Your task to perform on an android device: When is my next meeting? Image 0: 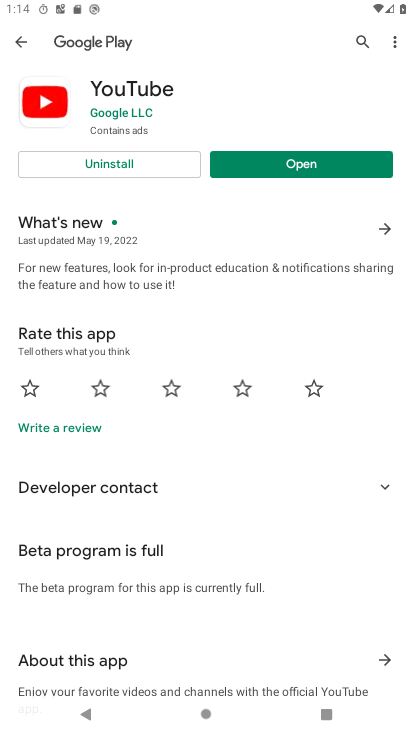
Step 0: press home button
Your task to perform on an android device: When is my next meeting? Image 1: 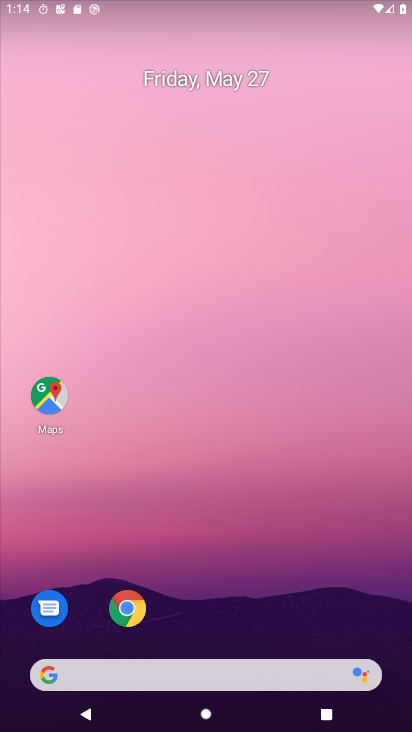
Step 1: drag from (389, 705) to (315, 114)
Your task to perform on an android device: When is my next meeting? Image 2: 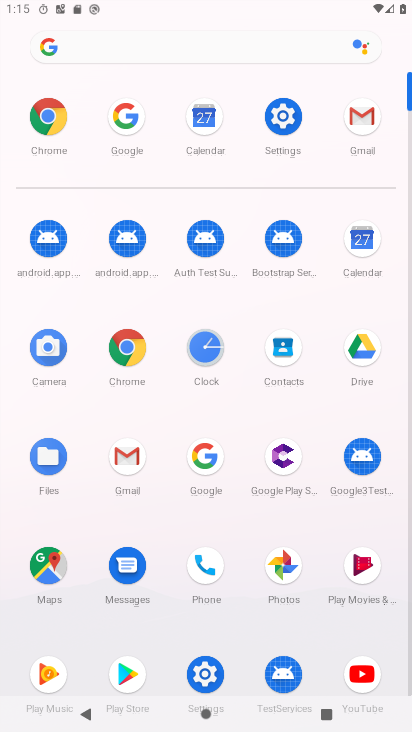
Step 2: click (368, 240)
Your task to perform on an android device: When is my next meeting? Image 3: 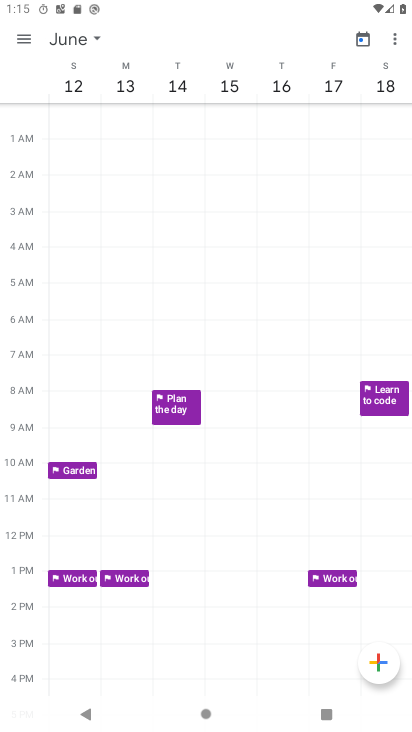
Step 3: click (25, 34)
Your task to perform on an android device: When is my next meeting? Image 4: 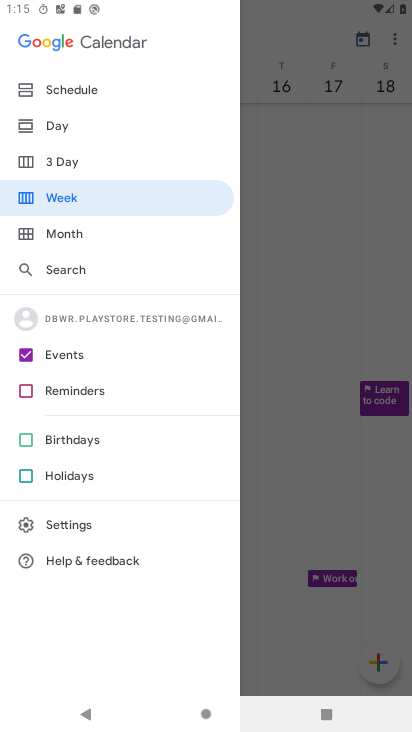
Step 4: click (46, 86)
Your task to perform on an android device: When is my next meeting? Image 5: 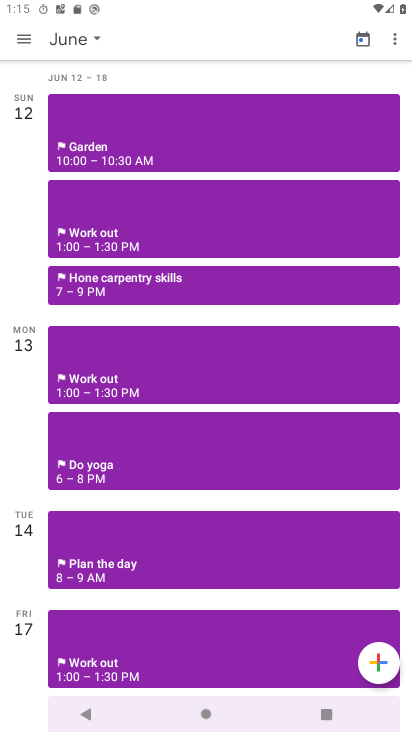
Step 5: click (97, 36)
Your task to perform on an android device: When is my next meeting? Image 6: 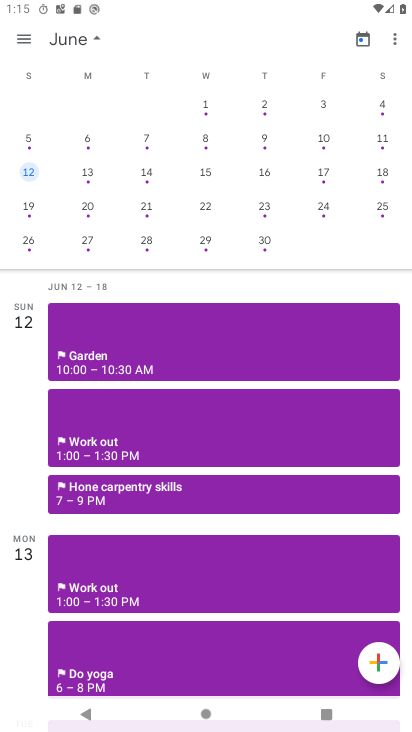
Step 6: drag from (10, 122) to (311, 115)
Your task to perform on an android device: When is my next meeting? Image 7: 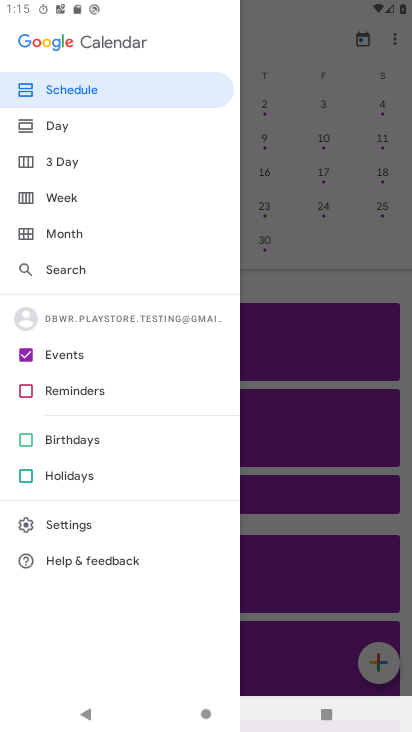
Step 7: click (299, 116)
Your task to perform on an android device: When is my next meeting? Image 8: 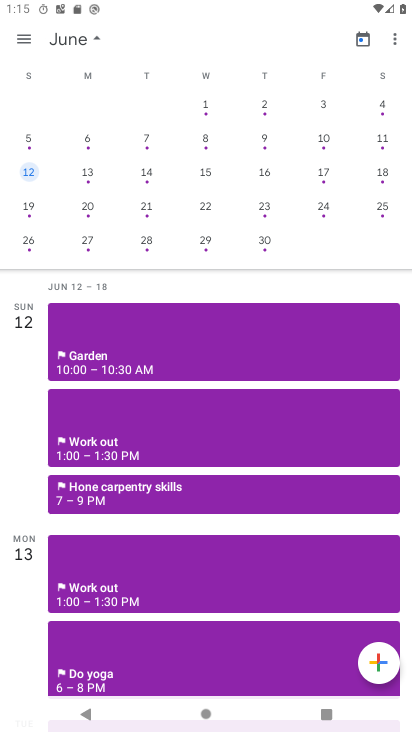
Step 8: click (359, 106)
Your task to perform on an android device: When is my next meeting? Image 9: 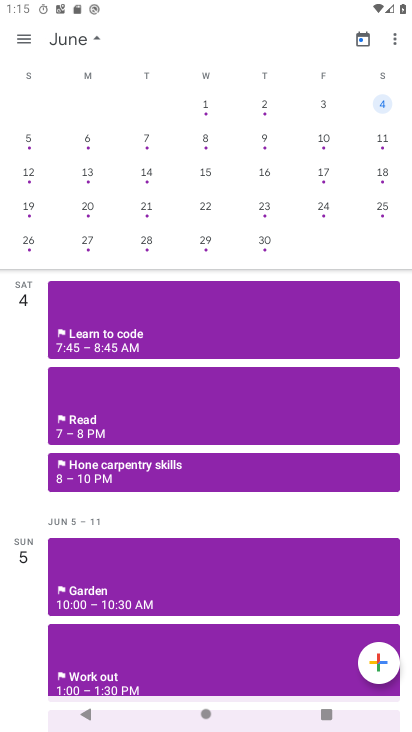
Step 9: drag from (62, 104) to (411, 100)
Your task to perform on an android device: When is my next meeting? Image 10: 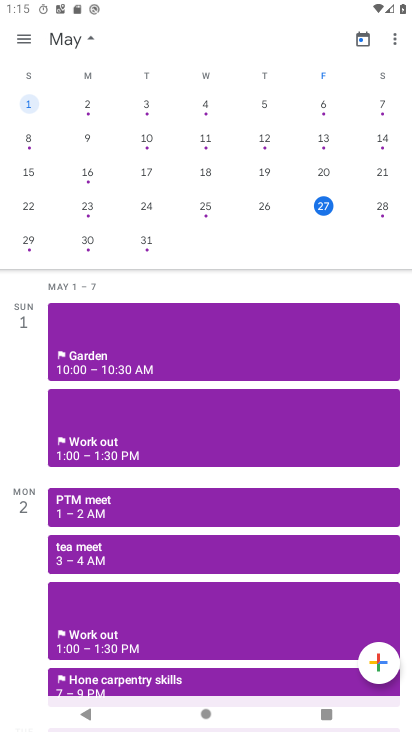
Step 10: click (29, 38)
Your task to perform on an android device: When is my next meeting? Image 11: 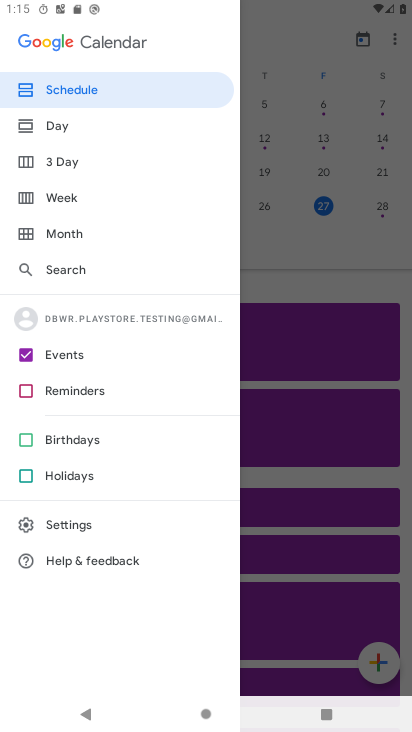
Step 11: click (43, 86)
Your task to perform on an android device: When is my next meeting? Image 12: 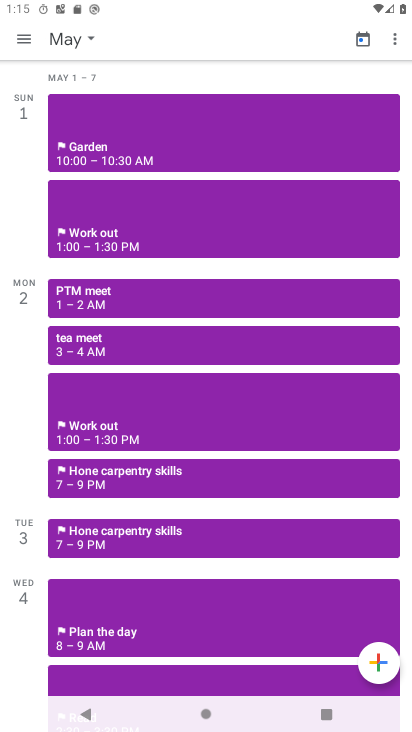
Step 12: task complete